Your task to perform on an android device: turn off javascript in the chrome app Image 0: 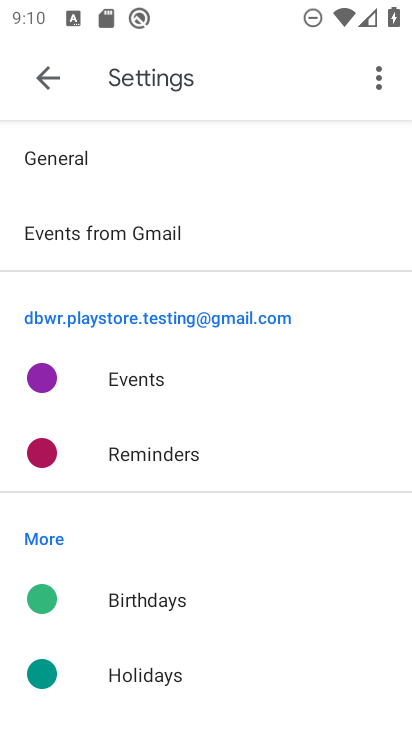
Step 0: press home button
Your task to perform on an android device: turn off javascript in the chrome app Image 1: 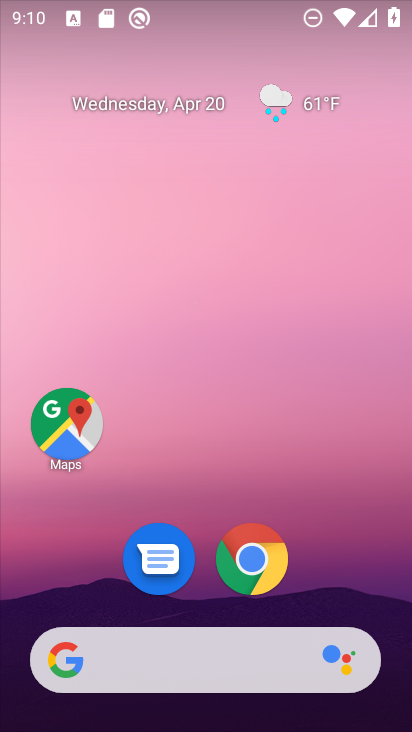
Step 1: click (251, 561)
Your task to perform on an android device: turn off javascript in the chrome app Image 2: 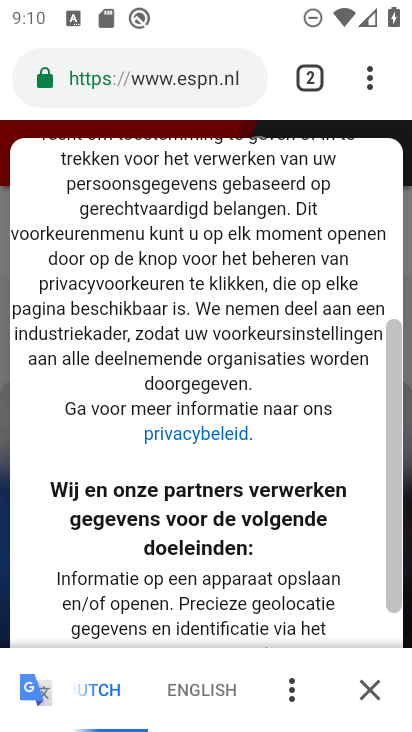
Step 2: click (366, 83)
Your task to perform on an android device: turn off javascript in the chrome app Image 3: 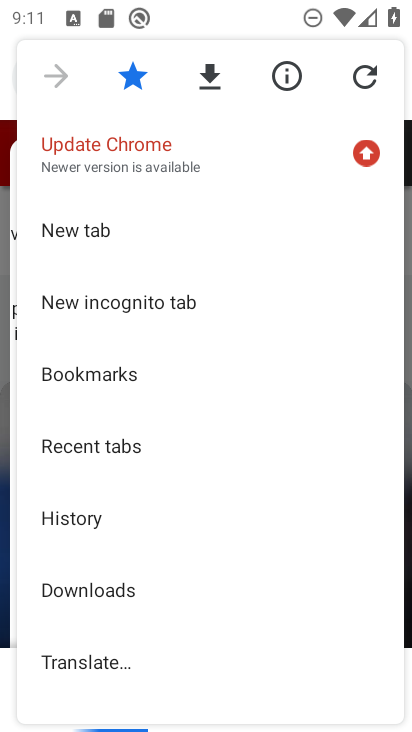
Step 3: drag from (220, 640) to (260, 172)
Your task to perform on an android device: turn off javascript in the chrome app Image 4: 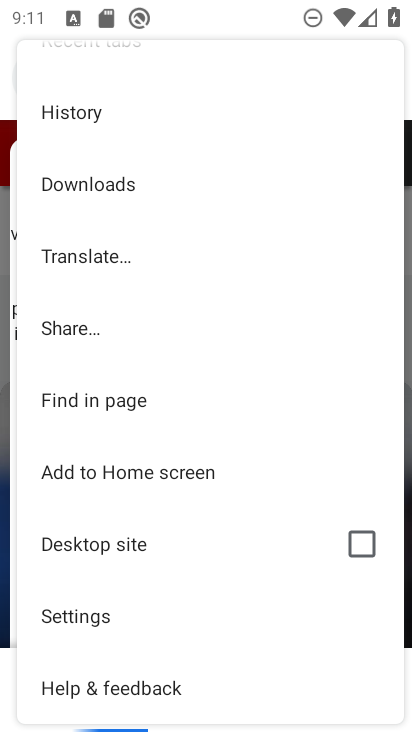
Step 4: click (81, 627)
Your task to perform on an android device: turn off javascript in the chrome app Image 5: 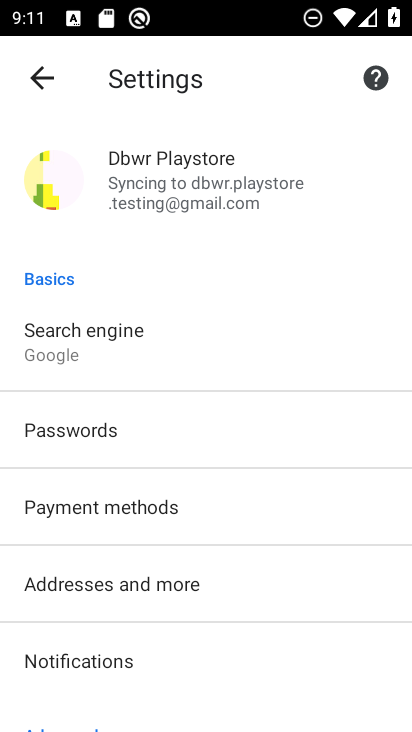
Step 5: drag from (276, 619) to (240, 273)
Your task to perform on an android device: turn off javascript in the chrome app Image 6: 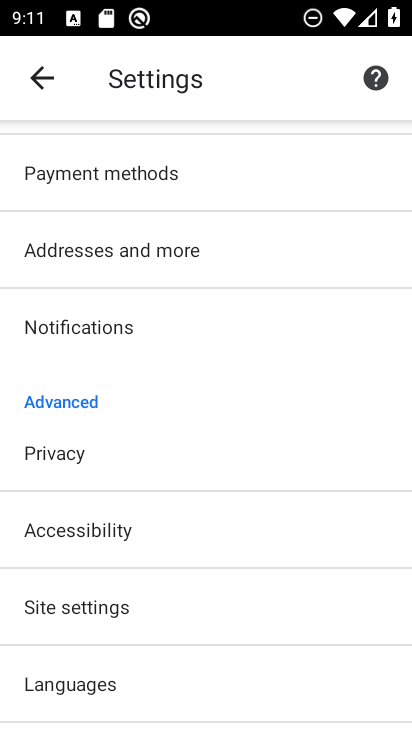
Step 6: click (67, 614)
Your task to perform on an android device: turn off javascript in the chrome app Image 7: 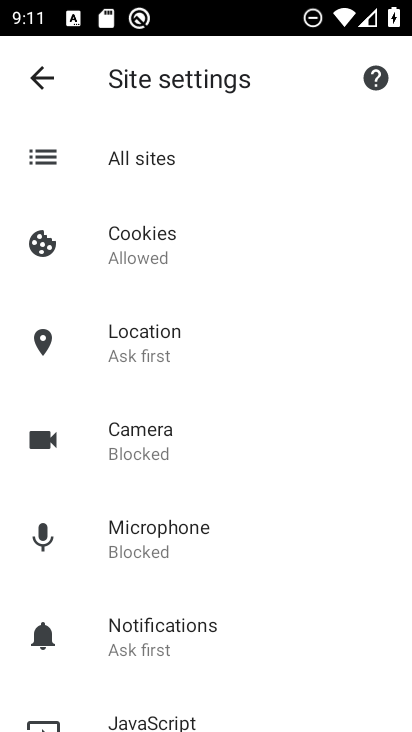
Step 7: drag from (243, 683) to (220, 350)
Your task to perform on an android device: turn off javascript in the chrome app Image 8: 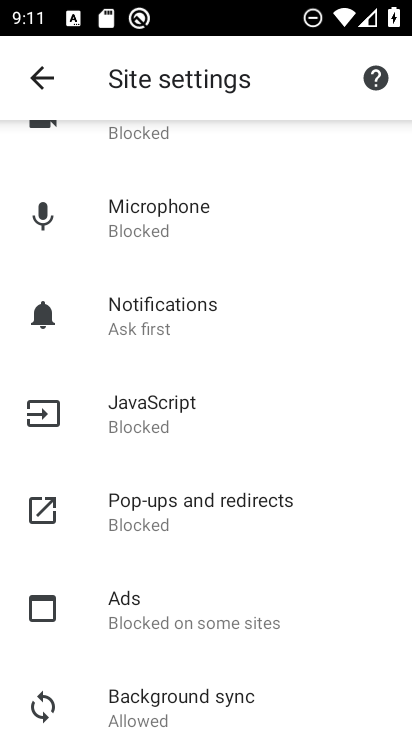
Step 8: click (128, 413)
Your task to perform on an android device: turn off javascript in the chrome app Image 9: 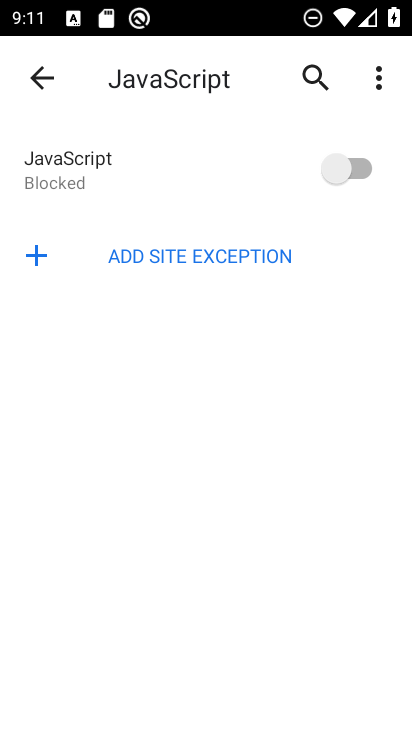
Step 9: task complete